Your task to perform on an android device: turn on airplane mode Image 0: 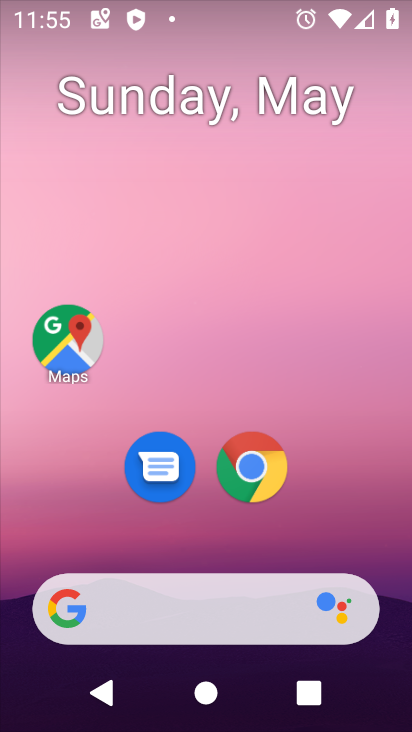
Step 0: drag from (385, 576) to (380, 6)
Your task to perform on an android device: turn on airplane mode Image 1: 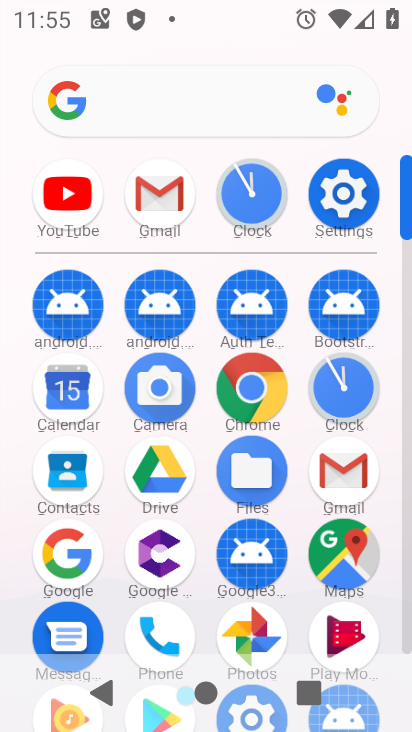
Step 1: click (348, 201)
Your task to perform on an android device: turn on airplane mode Image 2: 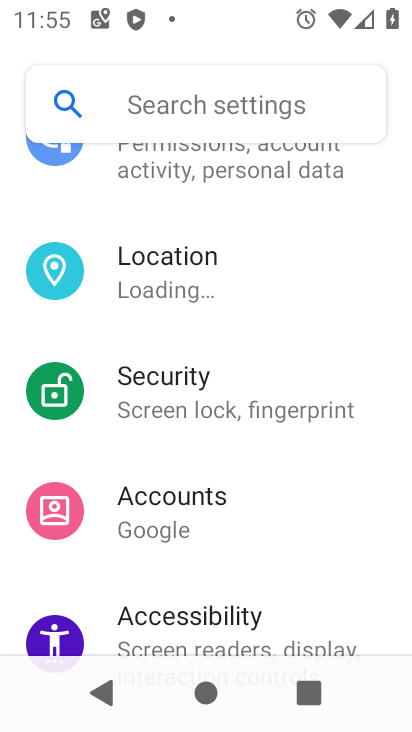
Step 2: drag from (340, 255) to (326, 548)
Your task to perform on an android device: turn on airplane mode Image 3: 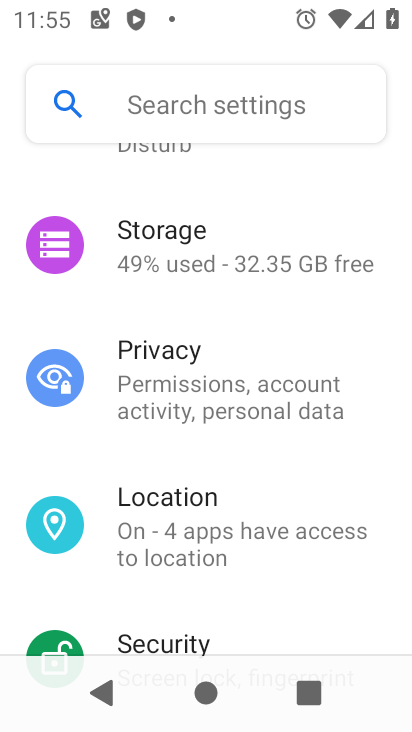
Step 3: drag from (321, 224) to (317, 530)
Your task to perform on an android device: turn on airplane mode Image 4: 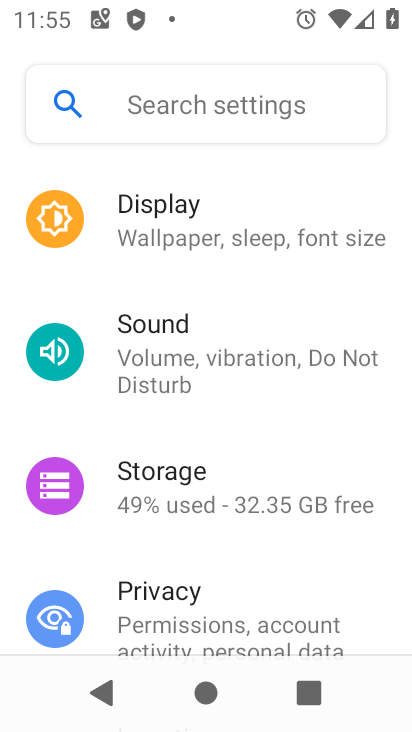
Step 4: drag from (319, 225) to (344, 549)
Your task to perform on an android device: turn on airplane mode Image 5: 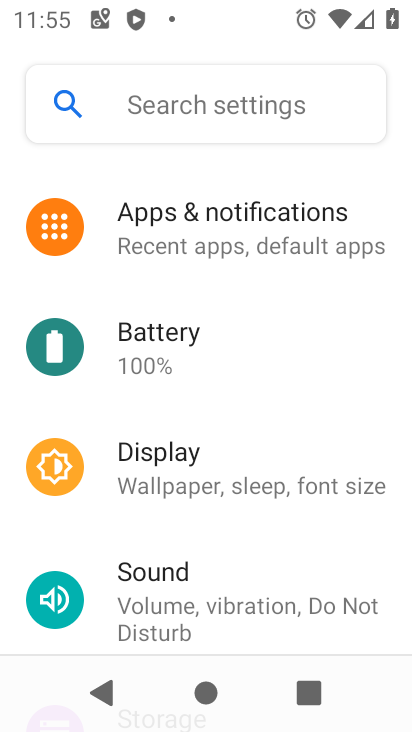
Step 5: drag from (314, 273) to (307, 551)
Your task to perform on an android device: turn on airplane mode Image 6: 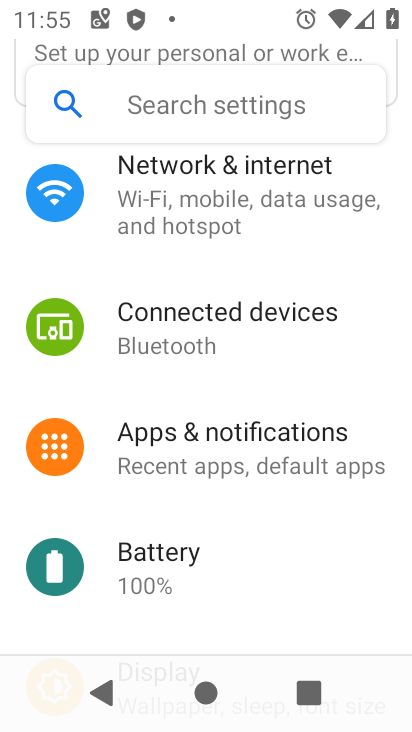
Step 6: click (198, 195)
Your task to perform on an android device: turn on airplane mode Image 7: 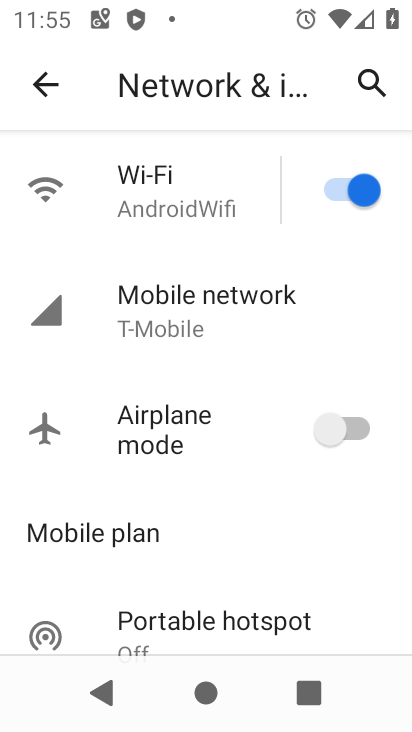
Step 7: click (334, 442)
Your task to perform on an android device: turn on airplane mode Image 8: 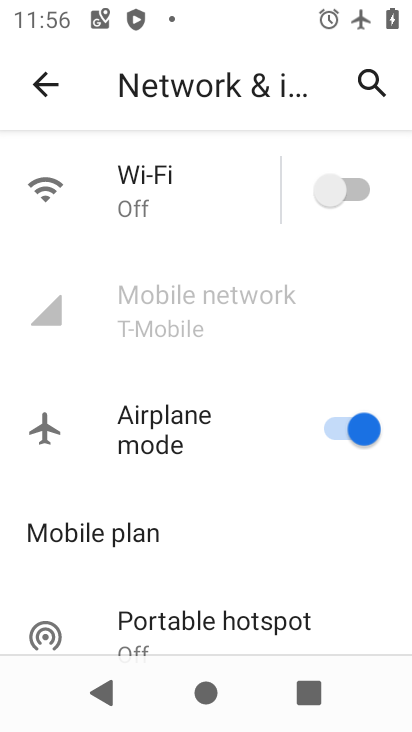
Step 8: task complete